Your task to perform on an android device: Show me productivity apps on the Play Store Image 0: 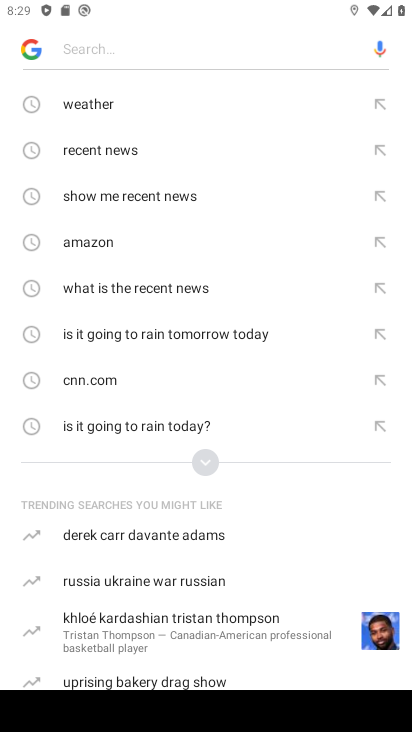
Step 0: press home button
Your task to perform on an android device: Show me productivity apps on the Play Store Image 1: 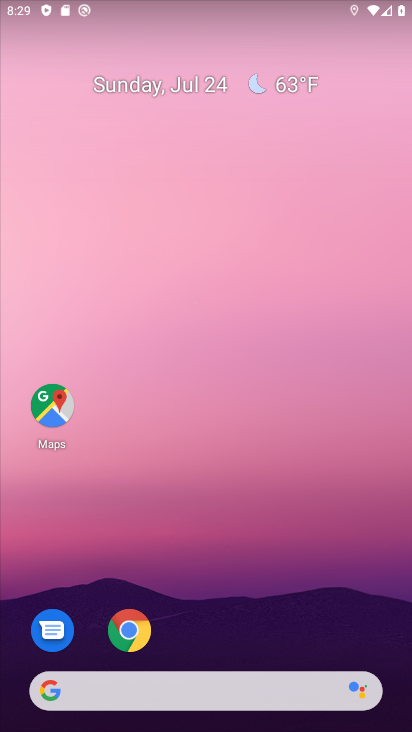
Step 1: drag from (261, 626) to (349, 158)
Your task to perform on an android device: Show me productivity apps on the Play Store Image 2: 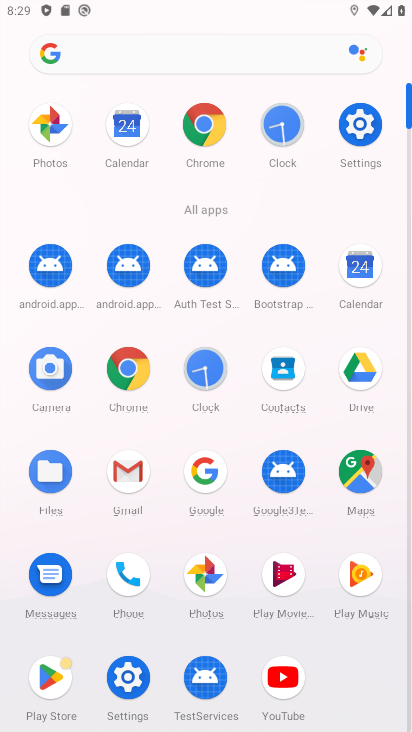
Step 2: click (52, 682)
Your task to perform on an android device: Show me productivity apps on the Play Store Image 3: 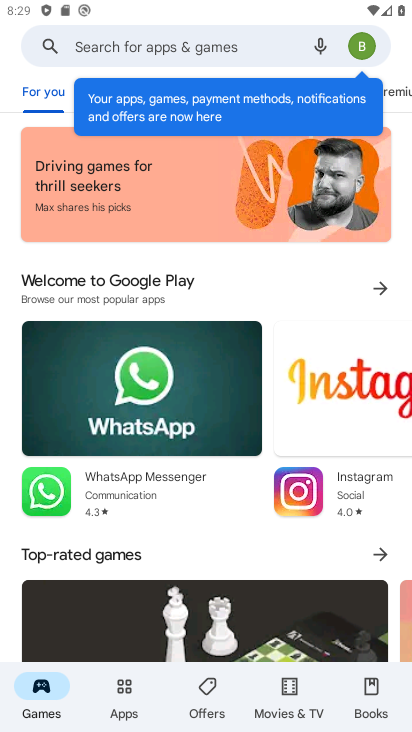
Step 3: click (126, 699)
Your task to perform on an android device: Show me productivity apps on the Play Store Image 4: 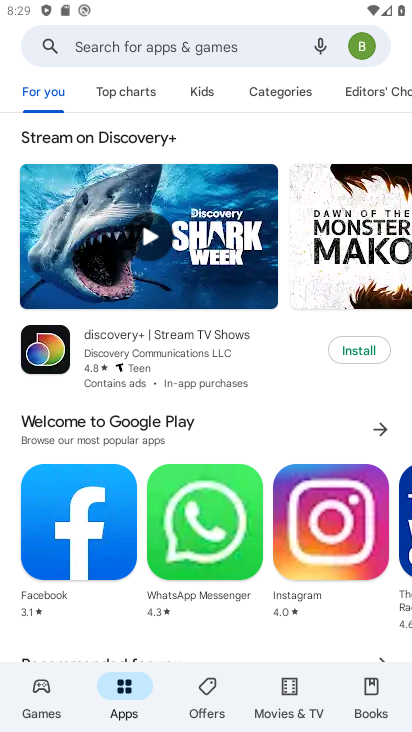
Step 4: click (277, 99)
Your task to perform on an android device: Show me productivity apps on the Play Store Image 5: 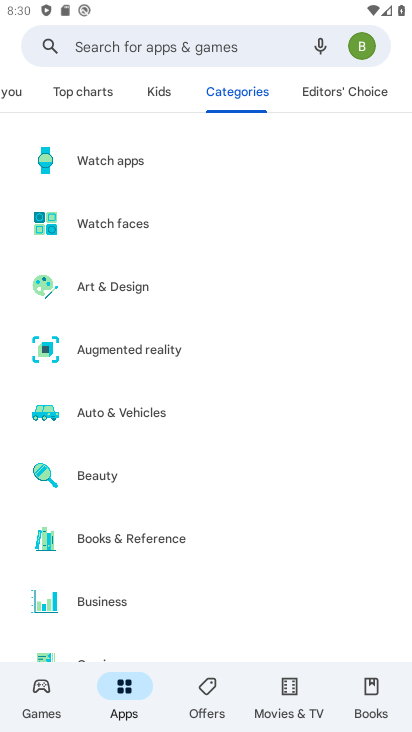
Step 5: drag from (198, 600) to (181, 113)
Your task to perform on an android device: Show me productivity apps on the Play Store Image 6: 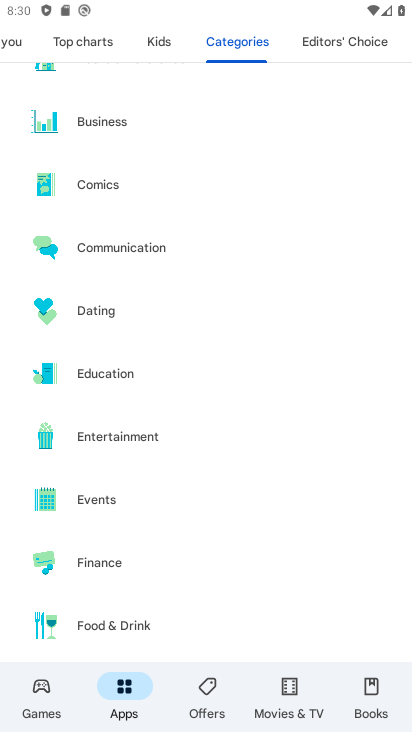
Step 6: drag from (185, 590) to (160, 213)
Your task to perform on an android device: Show me productivity apps on the Play Store Image 7: 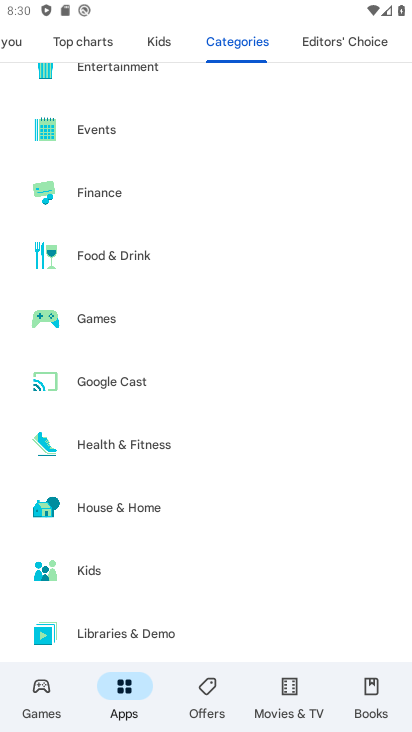
Step 7: drag from (207, 594) to (178, 177)
Your task to perform on an android device: Show me productivity apps on the Play Store Image 8: 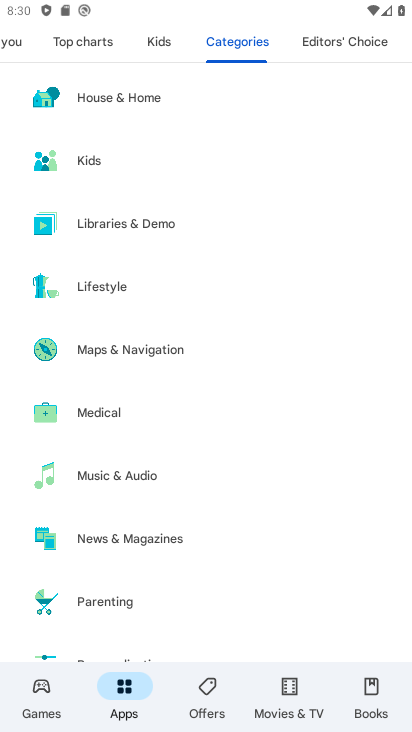
Step 8: drag from (198, 529) to (201, 104)
Your task to perform on an android device: Show me productivity apps on the Play Store Image 9: 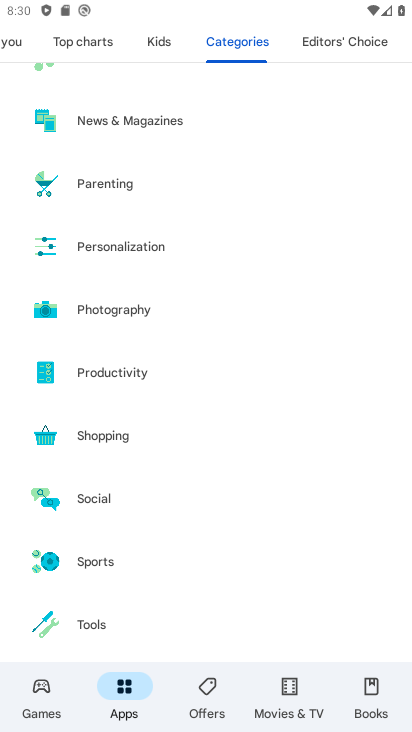
Step 9: click (162, 377)
Your task to perform on an android device: Show me productivity apps on the Play Store Image 10: 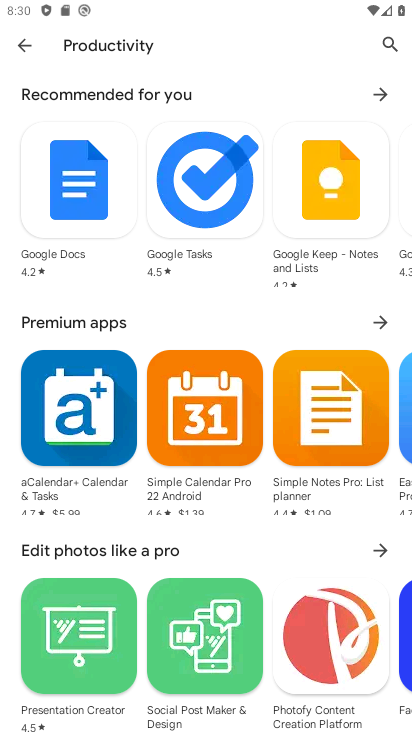
Step 10: task complete